Your task to perform on an android device: Search for pizza restaurants on Maps Image 0: 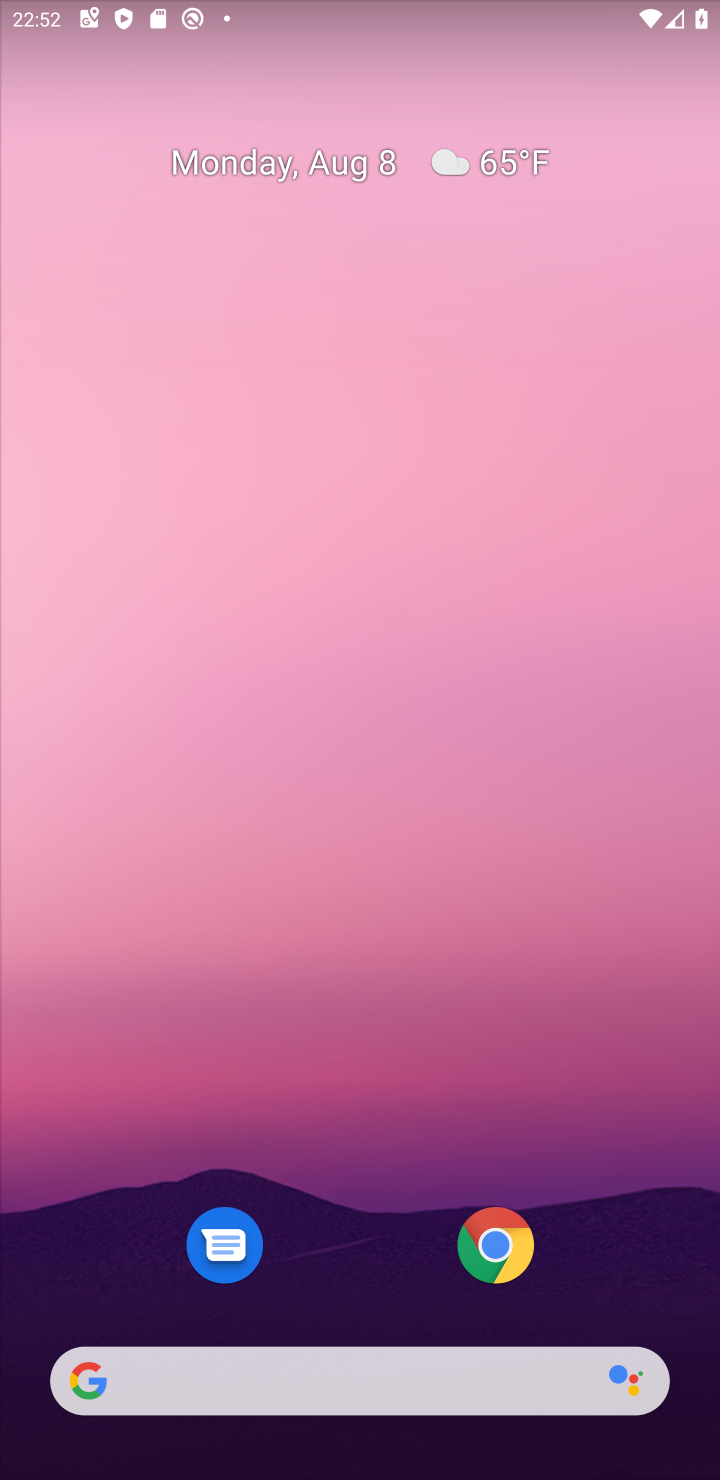
Step 0: drag from (407, 1151) to (276, 98)
Your task to perform on an android device: Search for pizza restaurants on Maps Image 1: 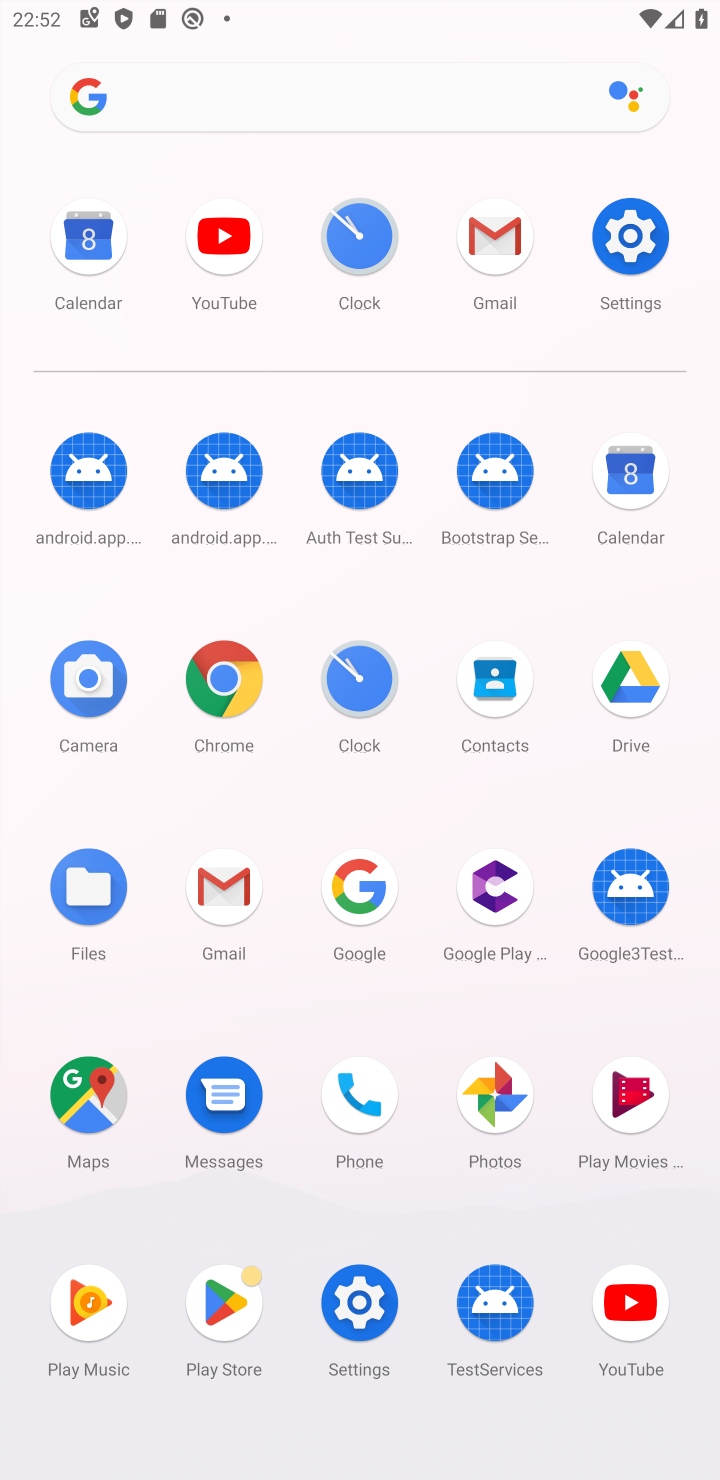
Step 1: click (87, 1090)
Your task to perform on an android device: Search for pizza restaurants on Maps Image 2: 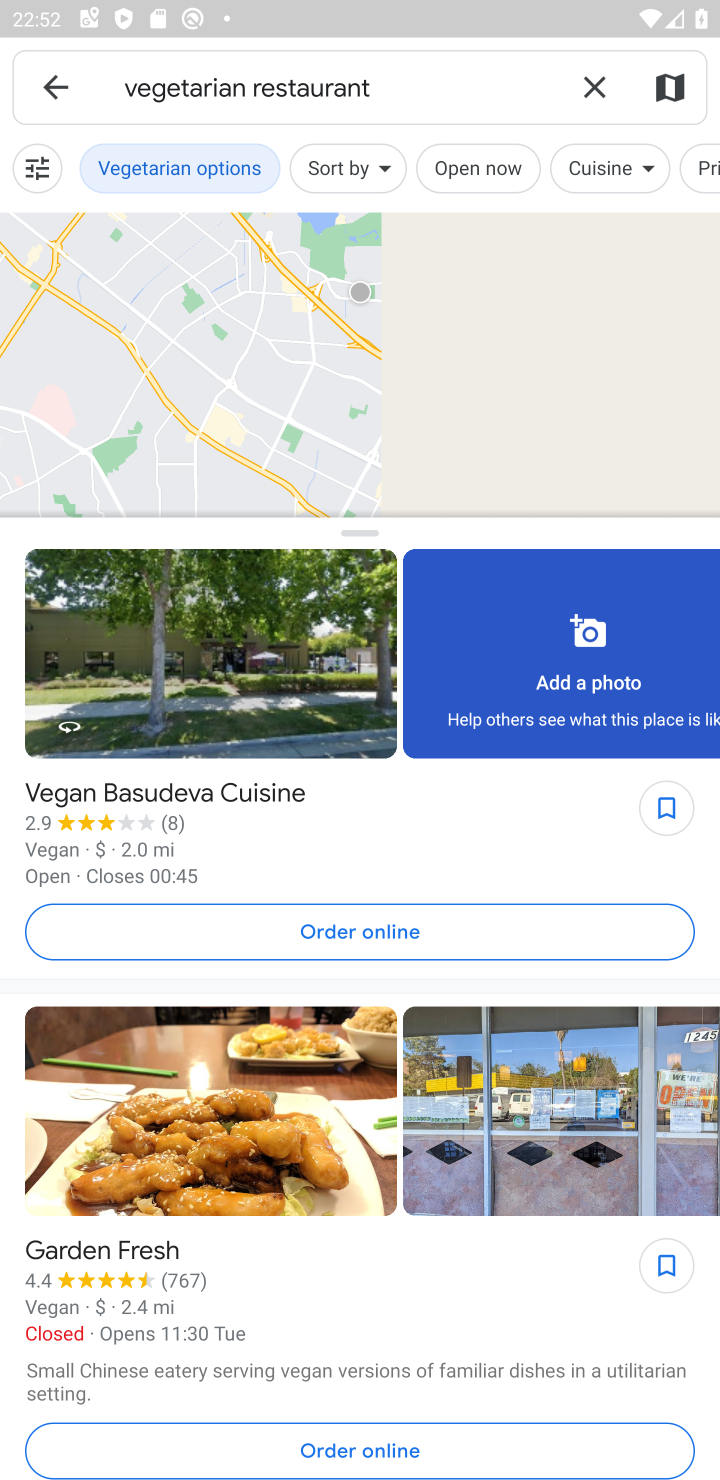
Step 2: click (598, 85)
Your task to perform on an android device: Search for pizza restaurants on Maps Image 3: 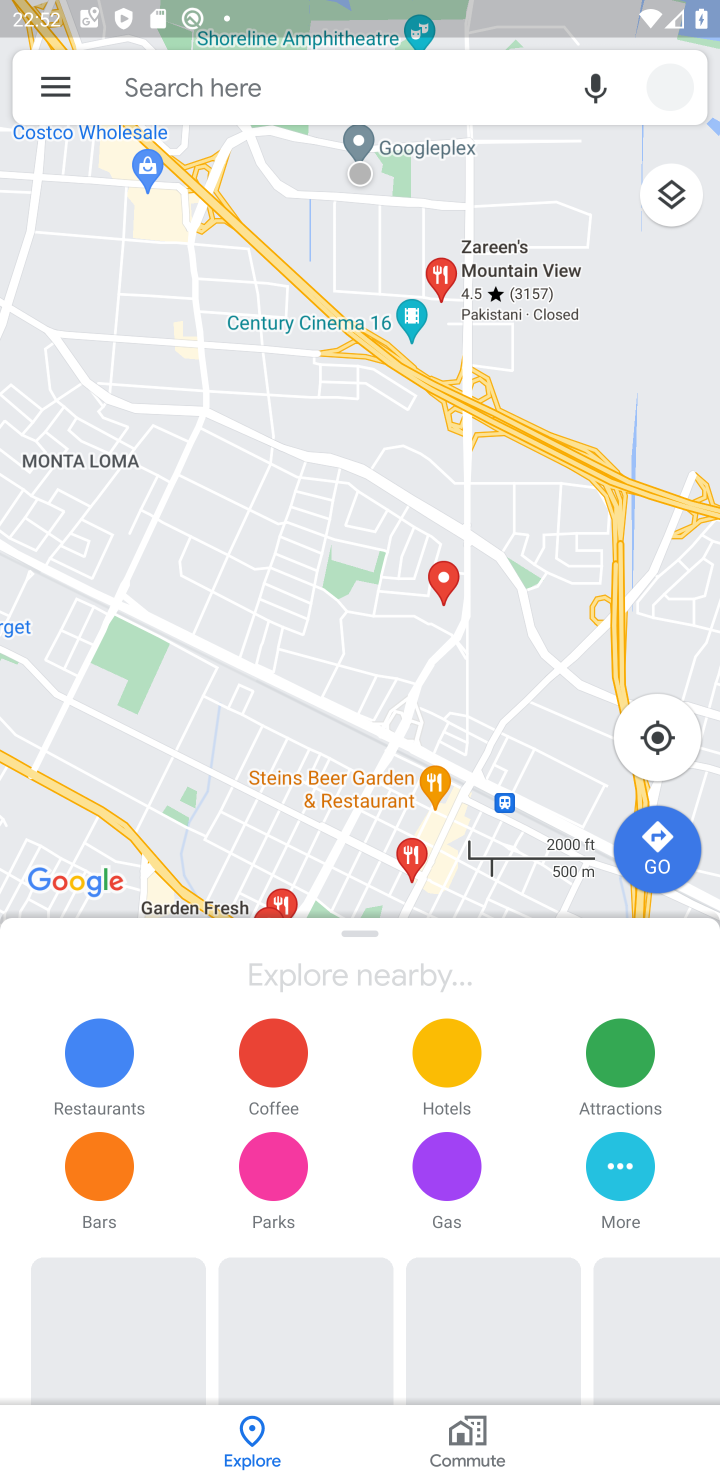
Step 3: click (313, 71)
Your task to perform on an android device: Search for pizza restaurants on Maps Image 4: 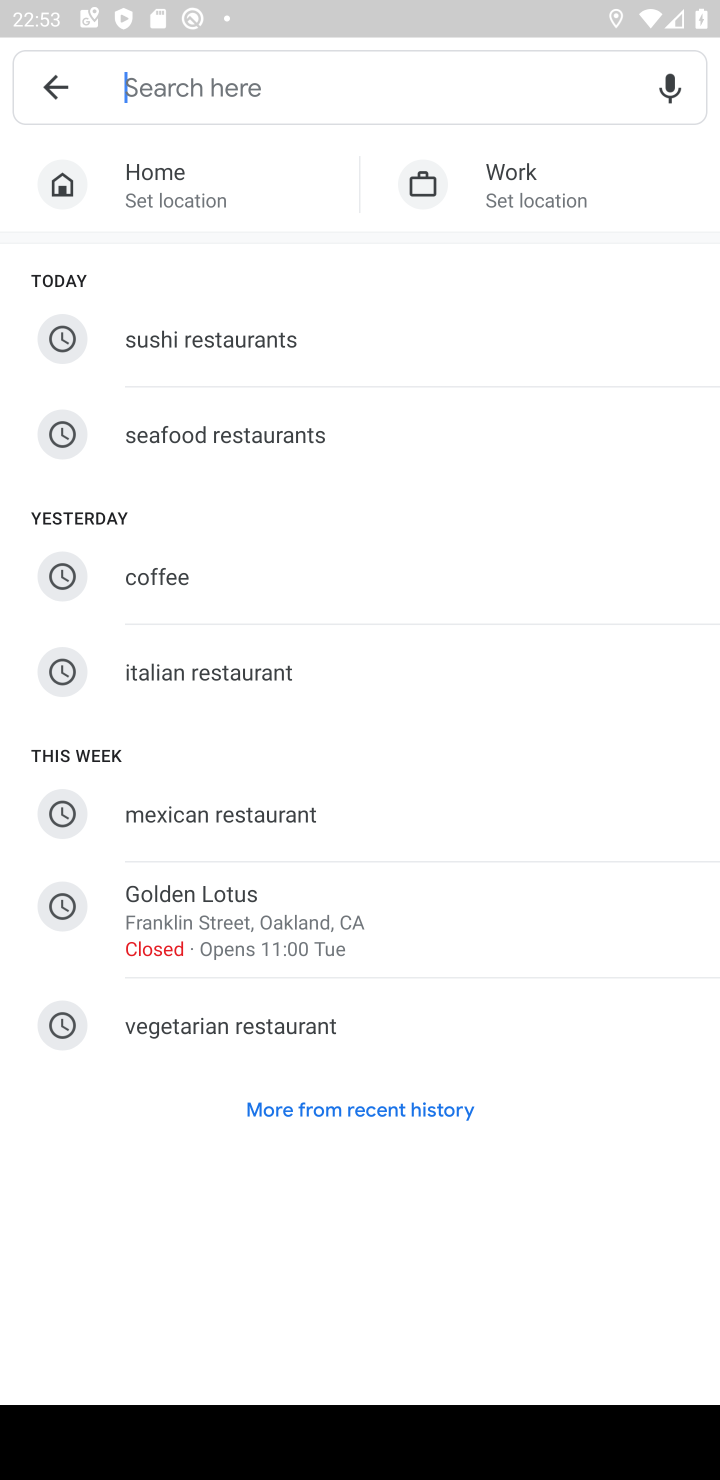
Step 4: type "pizza"
Your task to perform on an android device: Search for pizza restaurants on Maps Image 5: 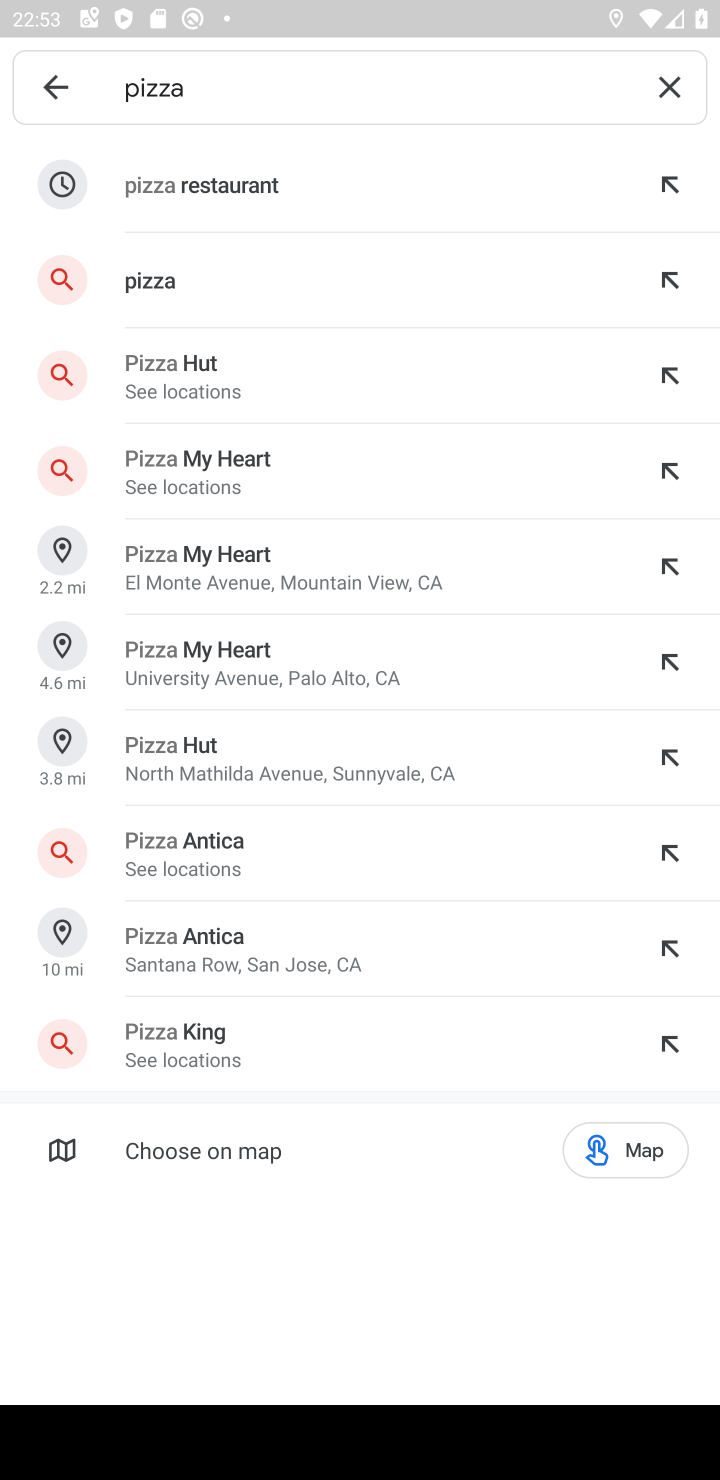
Step 5: click (227, 176)
Your task to perform on an android device: Search for pizza restaurants on Maps Image 6: 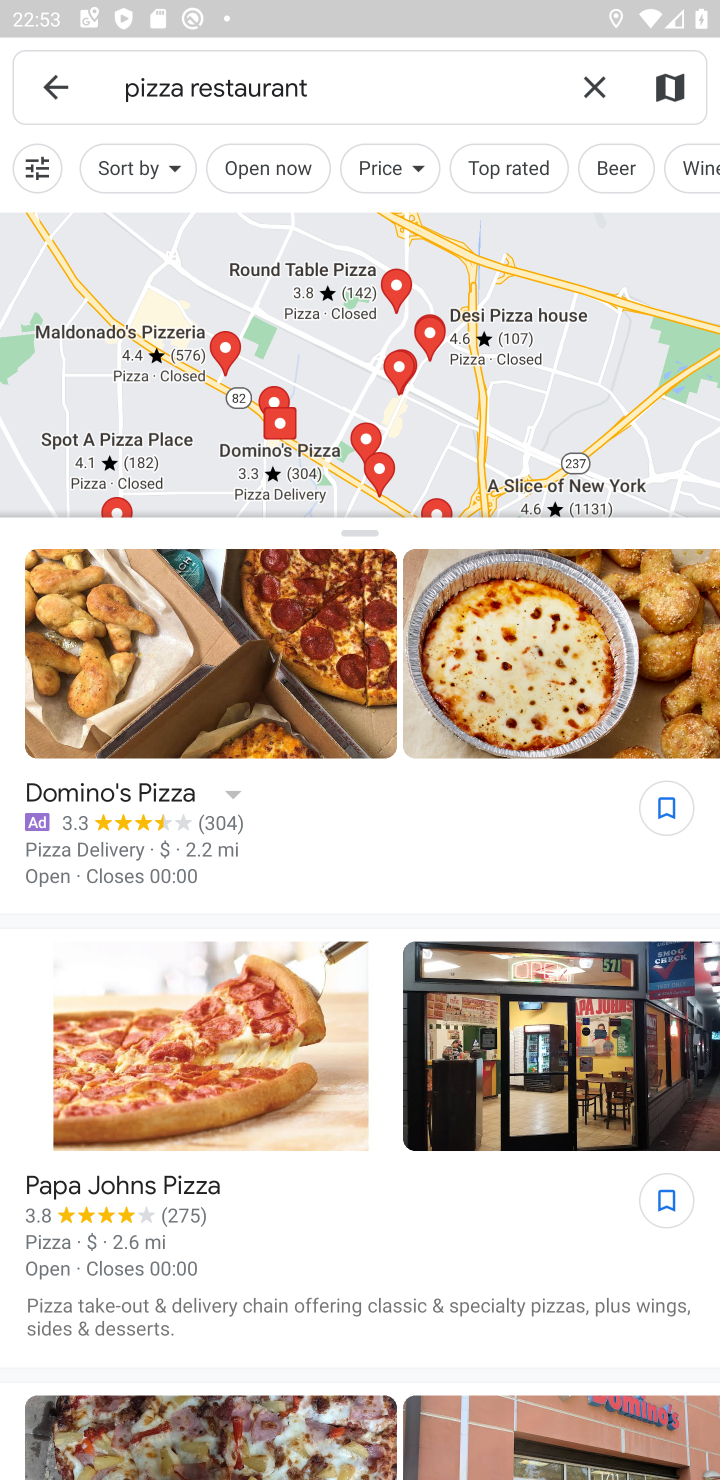
Step 6: task complete